Your task to perform on an android device: Open the phone app and click the voicemail tab. Image 0: 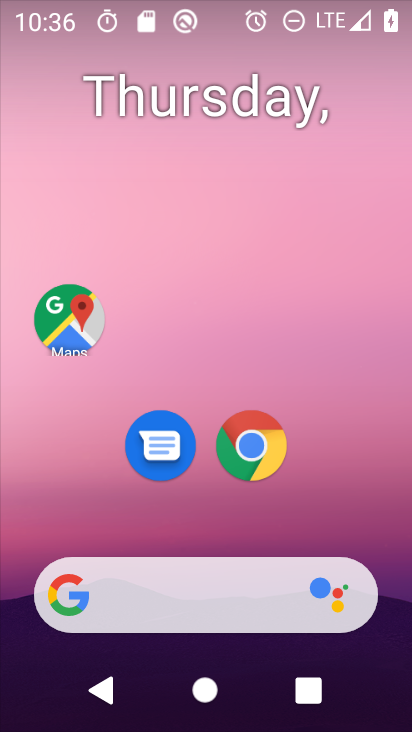
Step 0: drag from (200, 538) to (223, 19)
Your task to perform on an android device: Open the phone app and click the voicemail tab. Image 1: 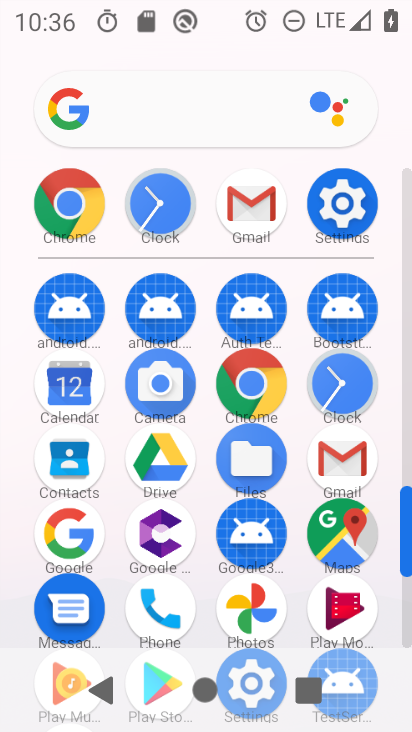
Step 1: click (147, 603)
Your task to perform on an android device: Open the phone app and click the voicemail tab. Image 2: 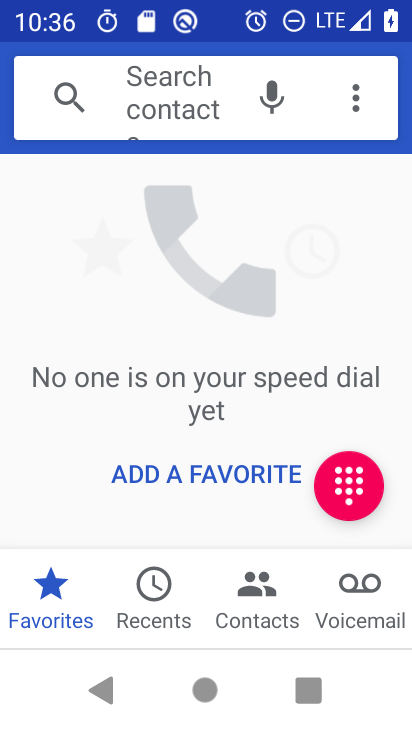
Step 2: click (339, 619)
Your task to perform on an android device: Open the phone app and click the voicemail tab. Image 3: 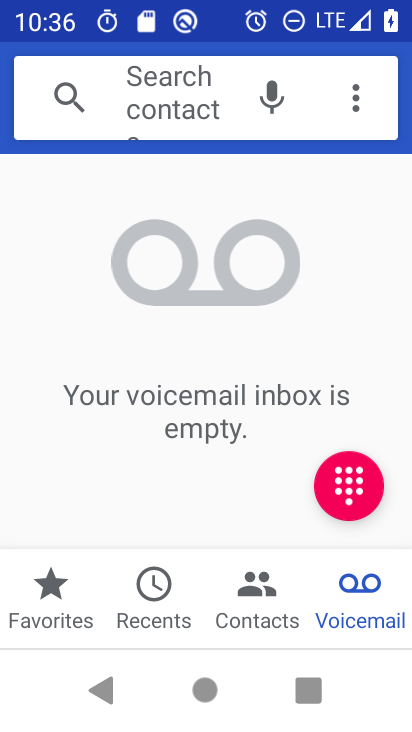
Step 3: task complete